Your task to perform on an android device: What time is it in Moscow? Image 0: 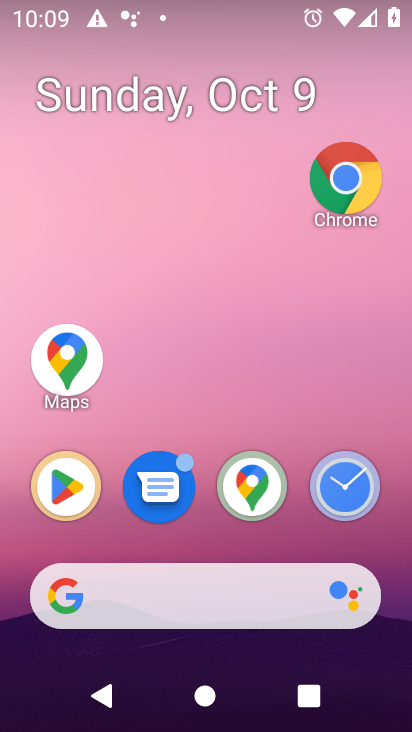
Step 0: drag from (205, 530) to (263, 4)
Your task to perform on an android device: What time is it in Moscow? Image 1: 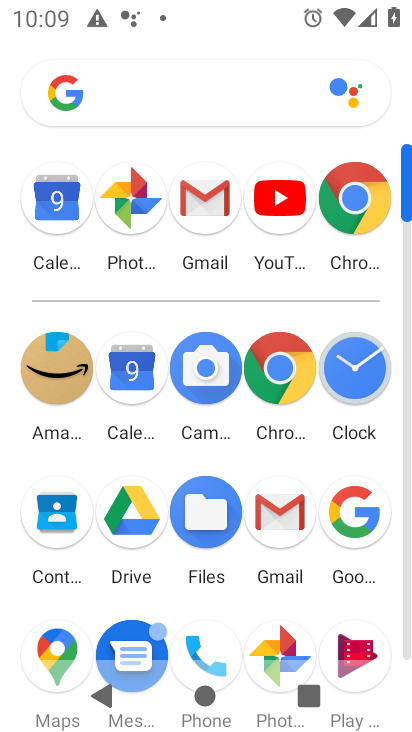
Step 1: click (352, 537)
Your task to perform on an android device: What time is it in Moscow? Image 2: 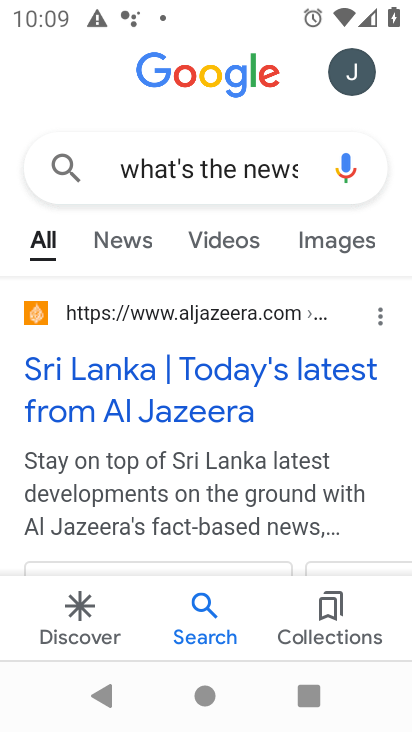
Step 2: click (276, 153)
Your task to perform on an android device: What time is it in Moscow? Image 3: 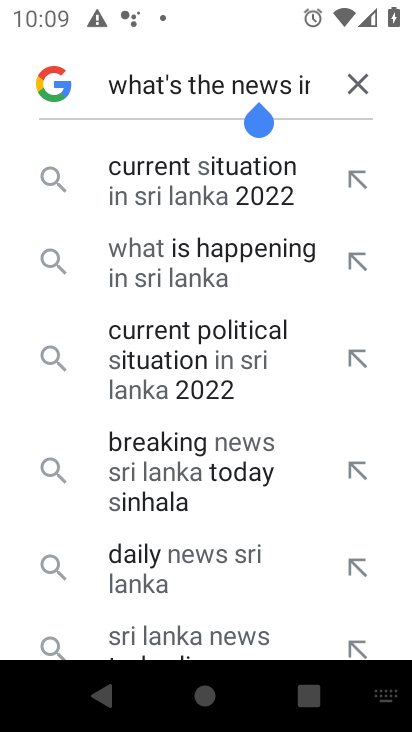
Step 3: click (352, 86)
Your task to perform on an android device: What time is it in Moscow? Image 4: 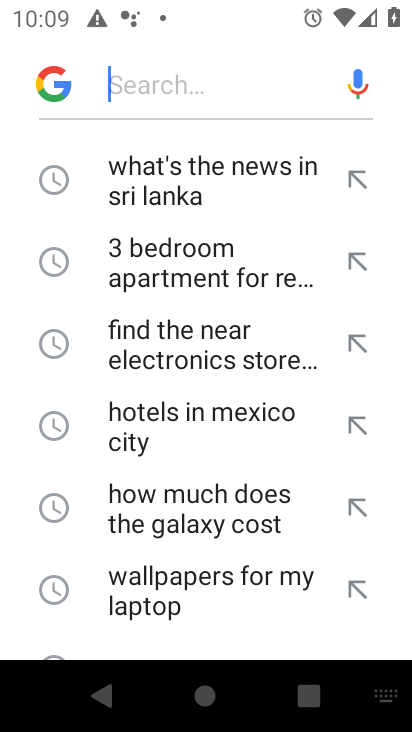
Step 4: type "What time is it in Moscow?"
Your task to perform on an android device: What time is it in Moscow? Image 5: 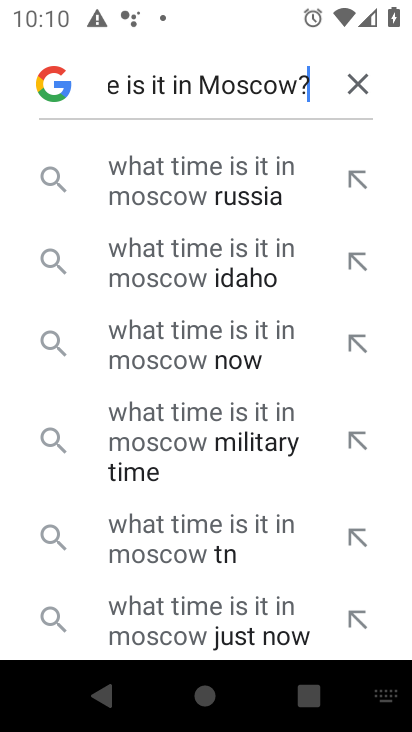
Step 5: click (256, 188)
Your task to perform on an android device: What time is it in Moscow? Image 6: 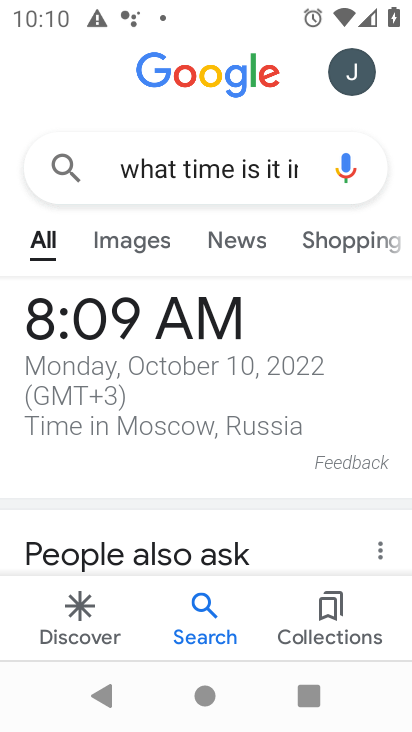
Step 6: task complete